Your task to perform on an android device: install app "Pandora - Music & Podcasts" Image 0: 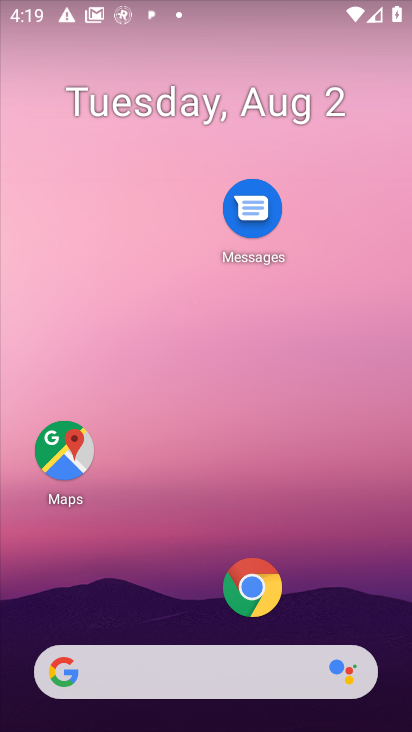
Step 0: drag from (197, 591) to (196, 153)
Your task to perform on an android device: install app "Pandora - Music & Podcasts" Image 1: 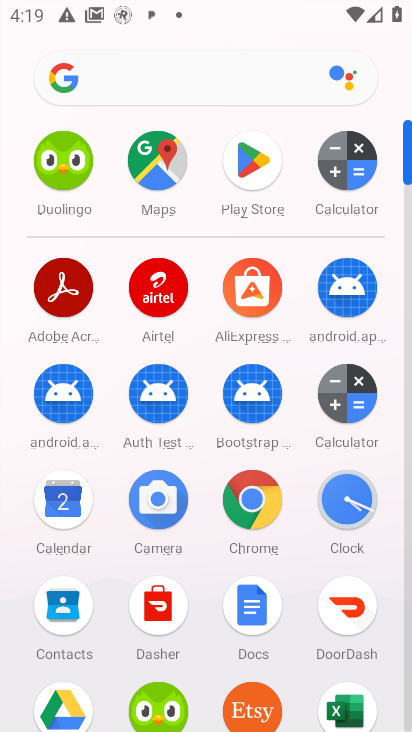
Step 1: click (238, 164)
Your task to perform on an android device: install app "Pandora - Music & Podcasts" Image 2: 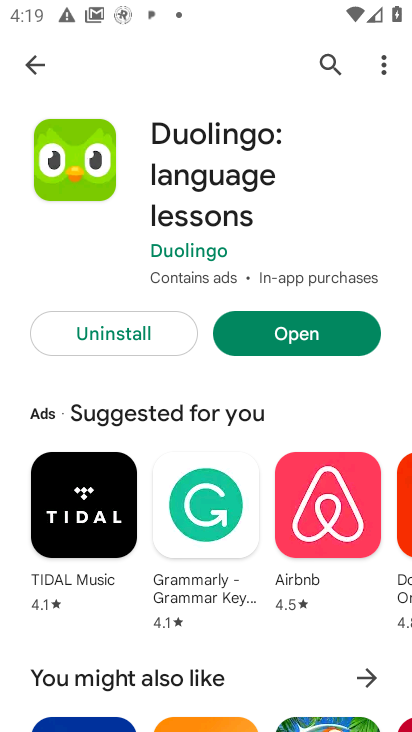
Step 2: click (328, 54)
Your task to perform on an android device: install app "Pandora - Music & Podcasts" Image 3: 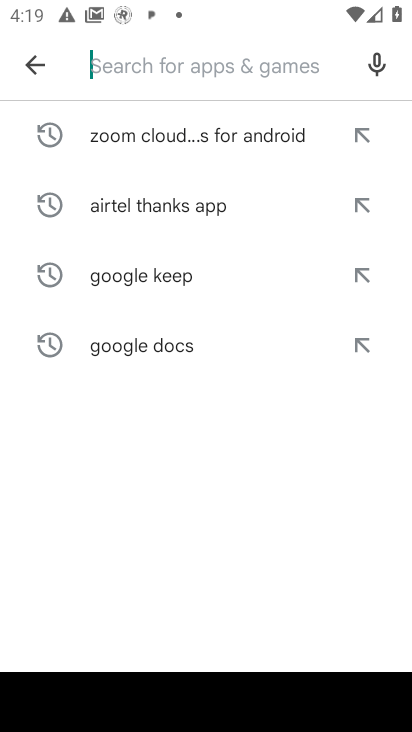
Step 3: type "Pandora - Music & Podcasts"
Your task to perform on an android device: install app "Pandora - Music & Podcasts" Image 4: 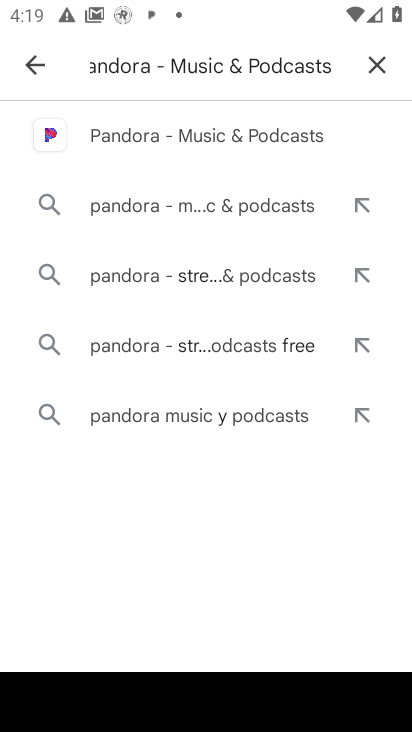
Step 4: click (247, 133)
Your task to perform on an android device: install app "Pandora - Music & Podcasts" Image 5: 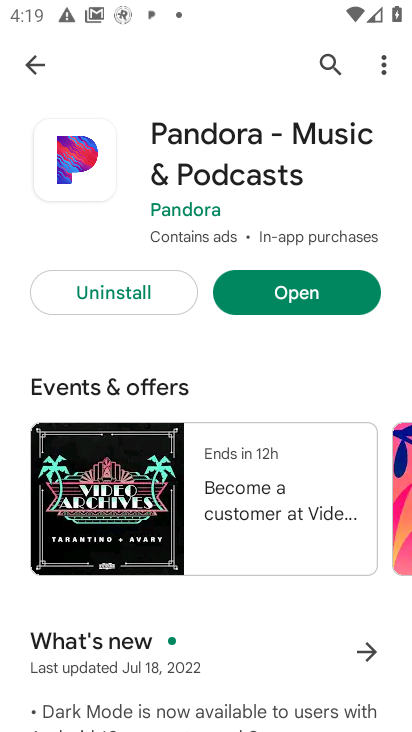
Step 5: task complete